Your task to perform on an android device: turn off javascript in the chrome app Image 0: 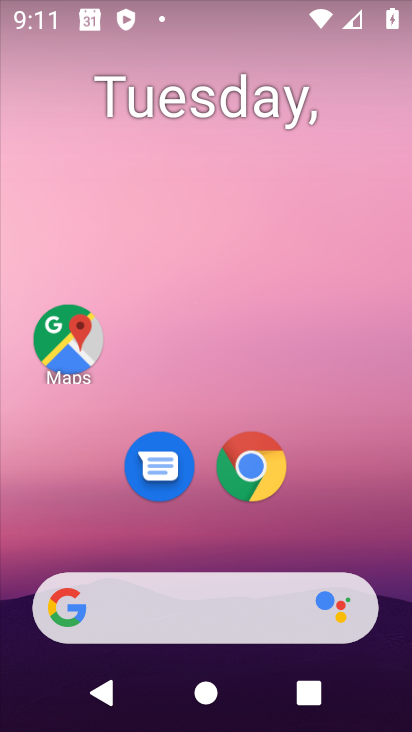
Step 0: click (266, 483)
Your task to perform on an android device: turn off javascript in the chrome app Image 1: 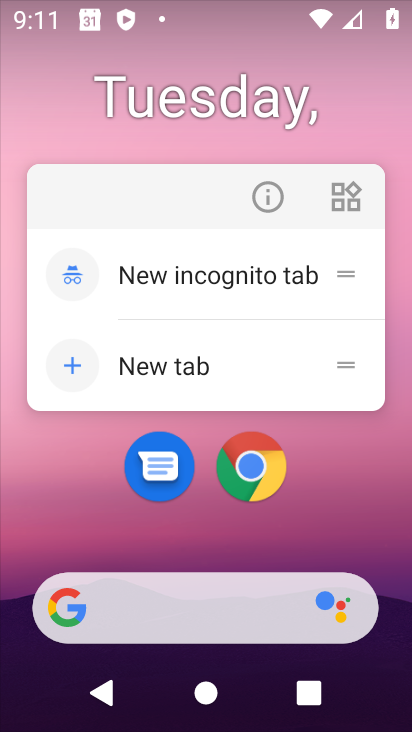
Step 1: click (262, 462)
Your task to perform on an android device: turn off javascript in the chrome app Image 2: 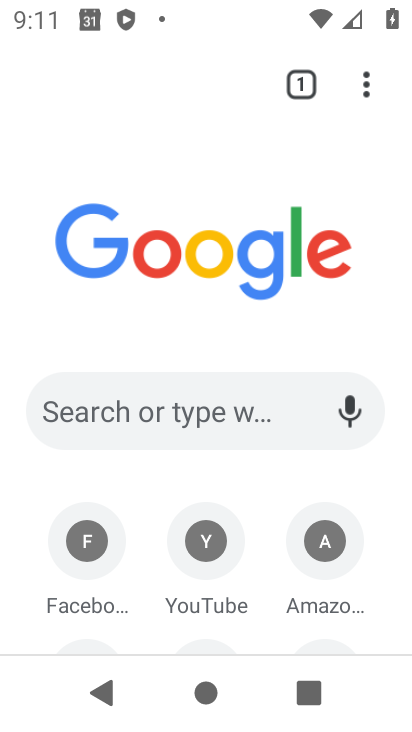
Step 2: click (367, 74)
Your task to perform on an android device: turn off javascript in the chrome app Image 3: 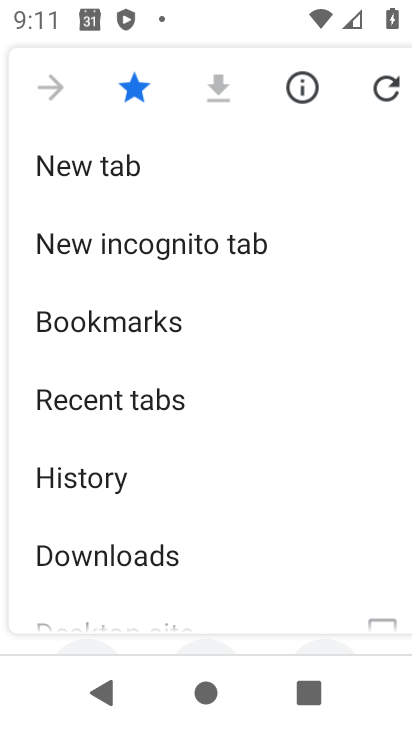
Step 3: drag from (227, 502) to (344, 138)
Your task to perform on an android device: turn off javascript in the chrome app Image 4: 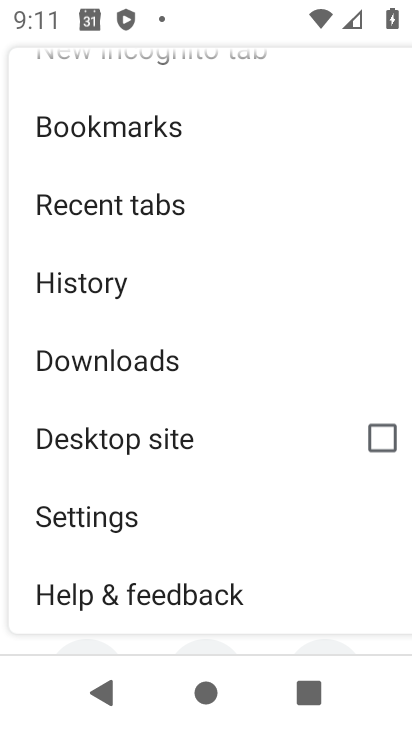
Step 4: click (113, 517)
Your task to perform on an android device: turn off javascript in the chrome app Image 5: 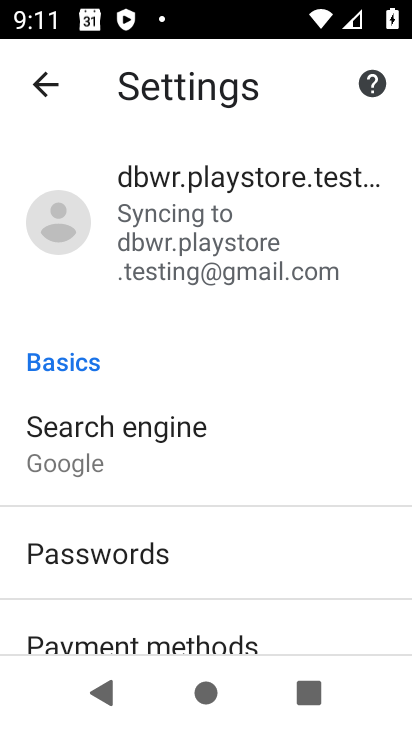
Step 5: drag from (202, 490) to (279, 182)
Your task to perform on an android device: turn off javascript in the chrome app Image 6: 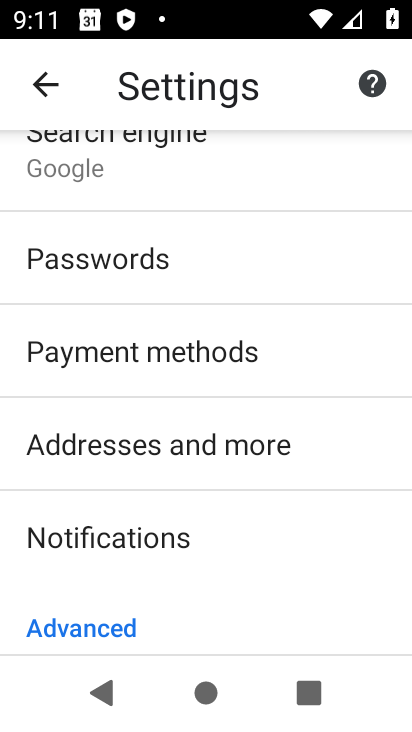
Step 6: drag from (203, 547) to (311, 250)
Your task to perform on an android device: turn off javascript in the chrome app Image 7: 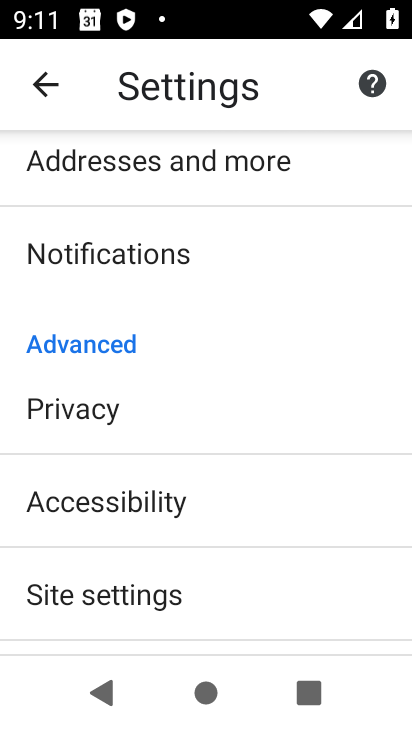
Step 7: drag from (200, 532) to (291, 308)
Your task to perform on an android device: turn off javascript in the chrome app Image 8: 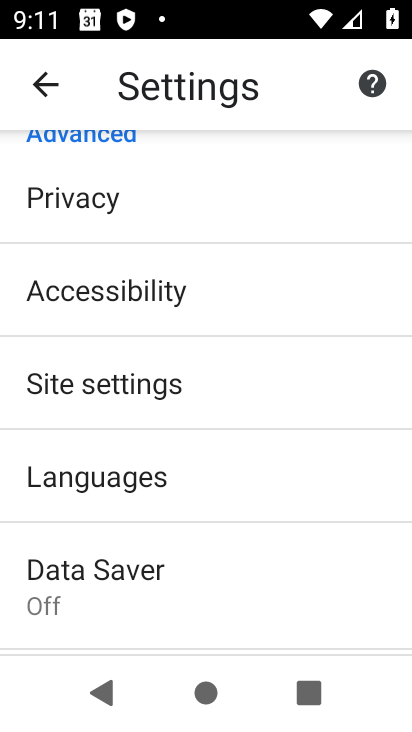
Step 8: click (185, 396)
Your task to perform on an android device: turn off javascript in the chrome app Image 9: 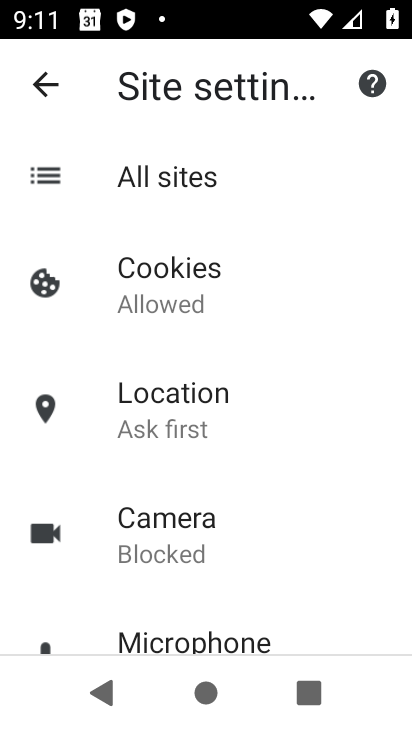
Step 9: drag from (285, 575) to (381, 324)
Your task to perform on an android device: turn off javascript in the chrome app Image 10: 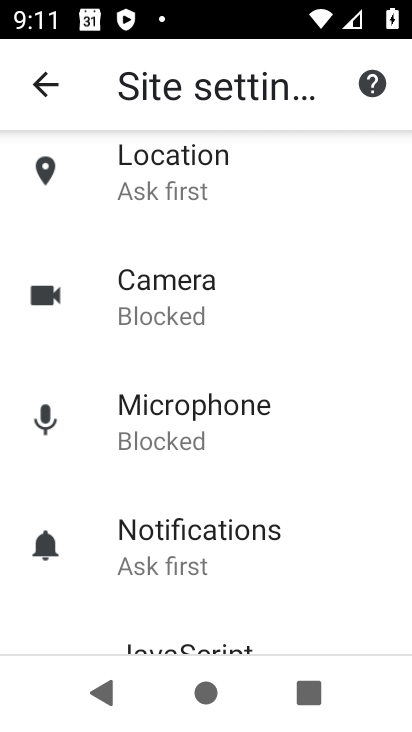
Step 10: drag from (283, 548) to (316, 262)
Your task to perform on an android device: turn off javascript in the chrome app Image 11: 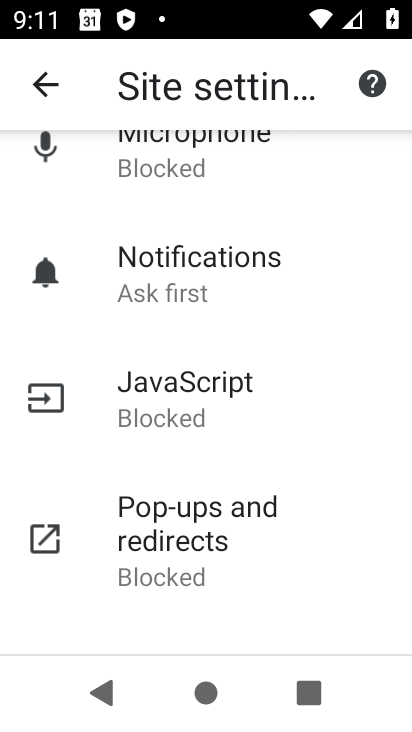
Step 11: click (203, 394)
Your task to perform on an android device: turn off javascript in the chrome app Image 12: 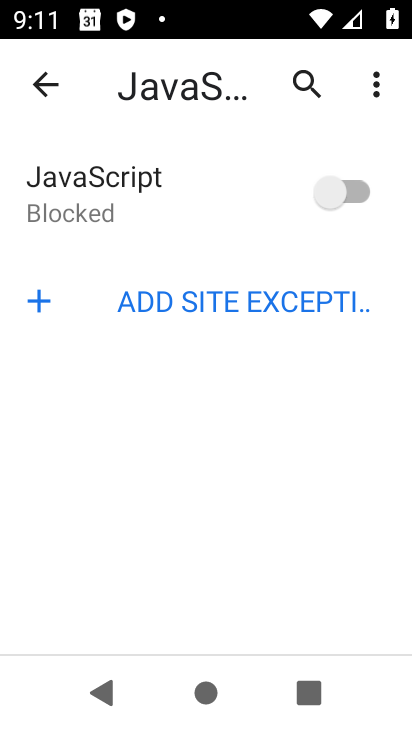
Step 12: task complete